Your task to perform on an android device: toggle location history Image 0: 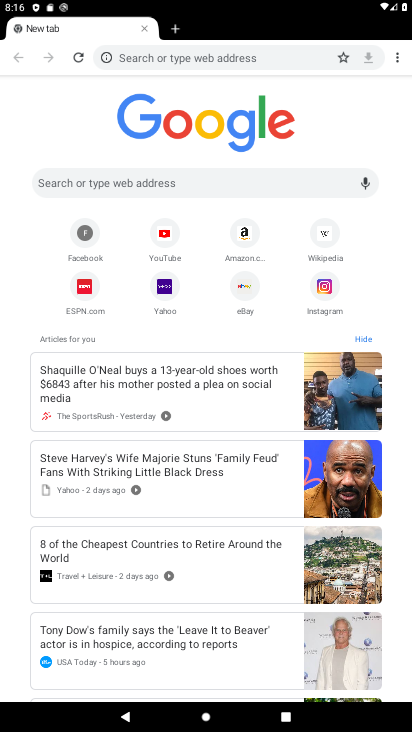
Step 0: press home button
Your task to perform on an android device: toggle location history Image 1: 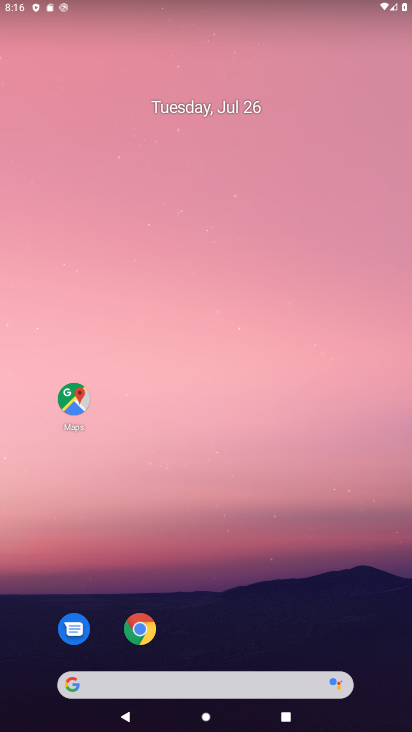
Step 1: drag from (231, 661) to (169, 63)
Your task to perform on an android device: toggle location history Image 2: 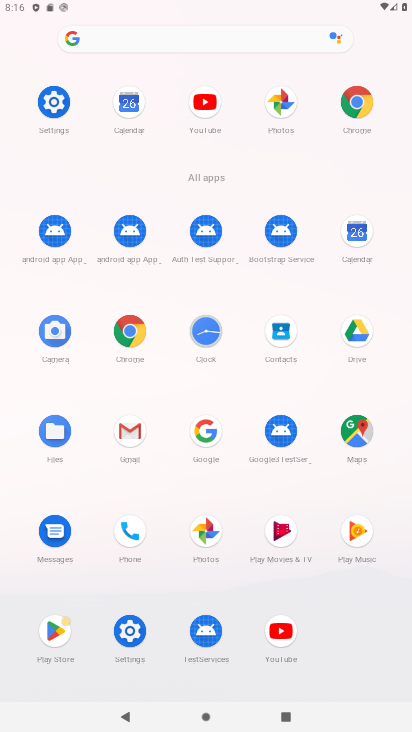
Step 2: click (133, 635)
Your task to perform on an android device: toggle location history Image 3: 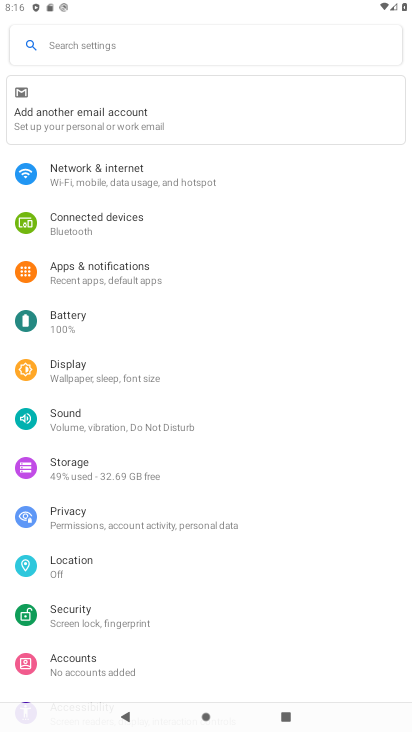
Step 3: click (73, 574)
Your task to perform on an android device: toggle location history Image 4: 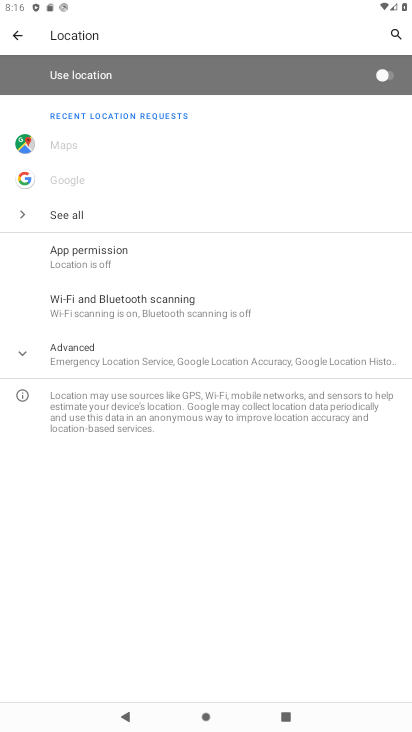
Step 4: click (95, 350)
Your task to perform on an android device: toggle location history Image 5: 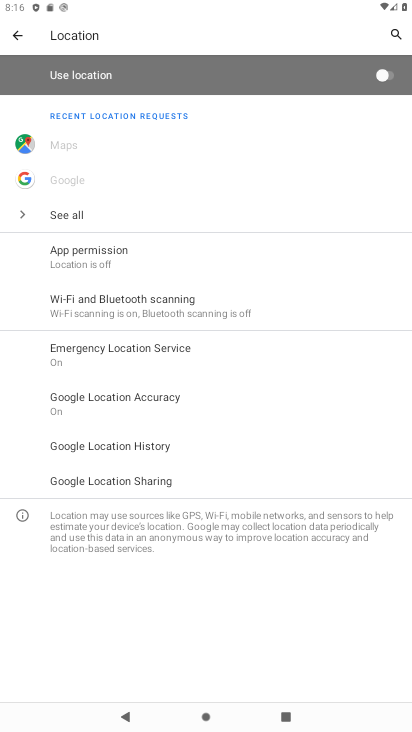
Step 5: click (127, 438)
Your task to perform on an android device: toggle location history Image 6: 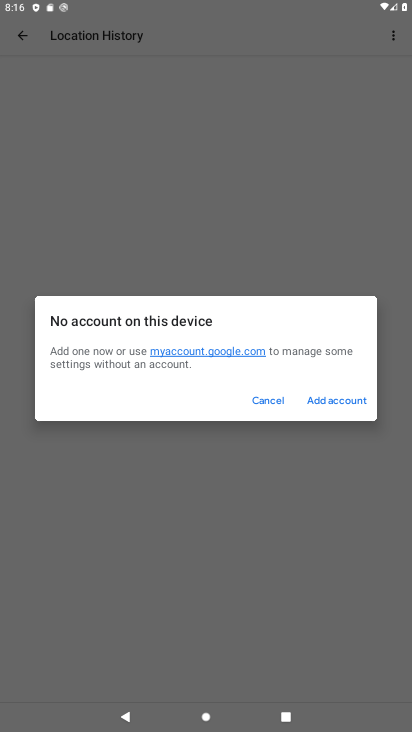
Step 6: task complete